Your task to perform on an android device: Is it going to rain today? Image 0: 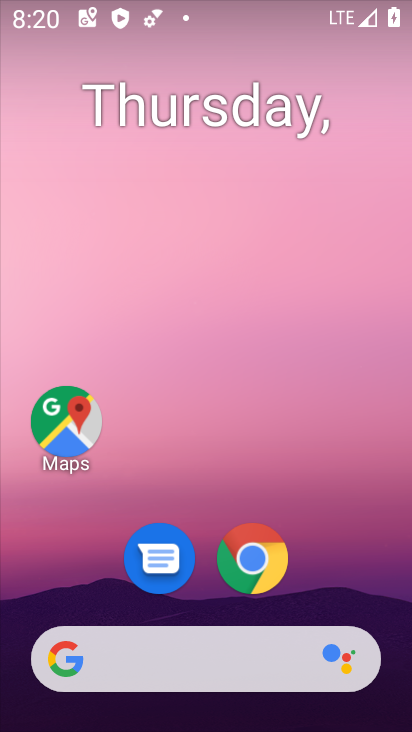
Step 0: drag from (185, 626) to (216, 276)
Your task to perform on an android device: Is it going to rain today? Image 1: 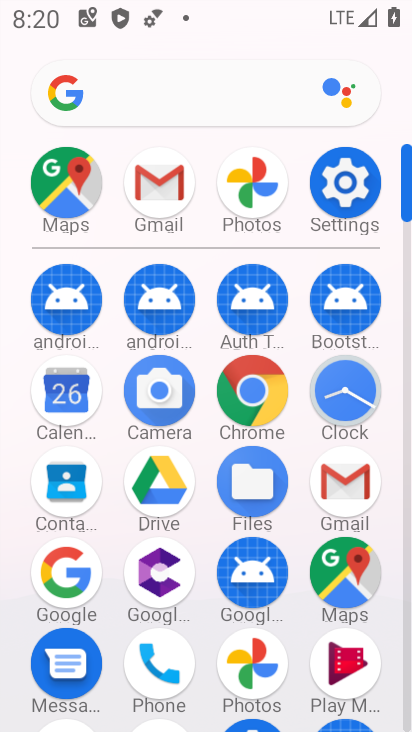
Step 1: click (73, 582)
Your task to perform on an android device: Is it going to rain today? Image 2: 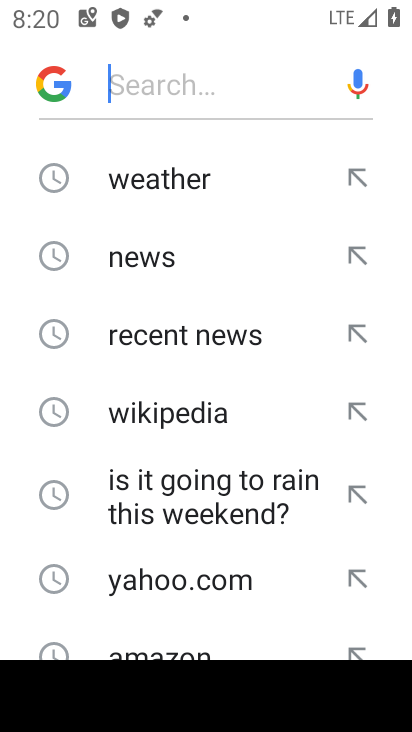
Step 2: drag from (197, 566) to (237, 163)
Your task to perform on an android device: Is it going to rain today? Image 3: 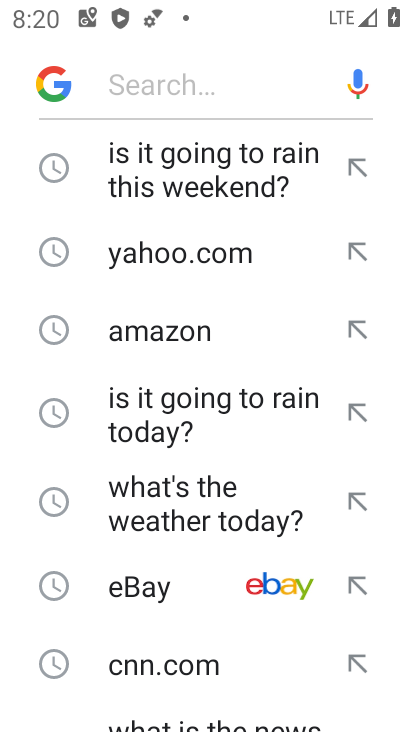
Step 3: click (196, 431)
Your task to perform on an android device: Is it going to rain today? Image 4: 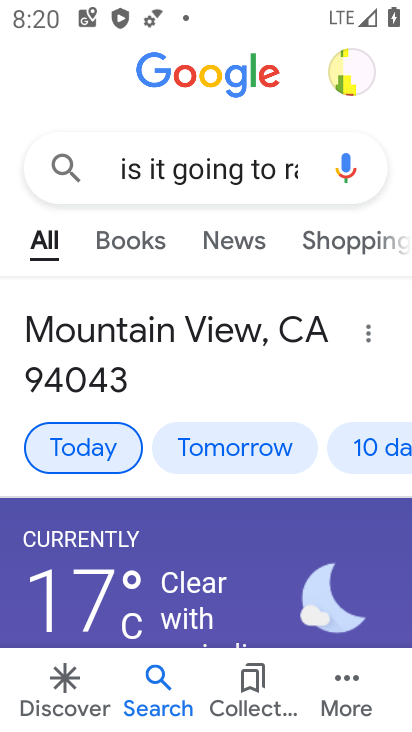
Step 4: task complete